Your task to perform on an android device: Search for sushi restaurants on Maps Image 0: 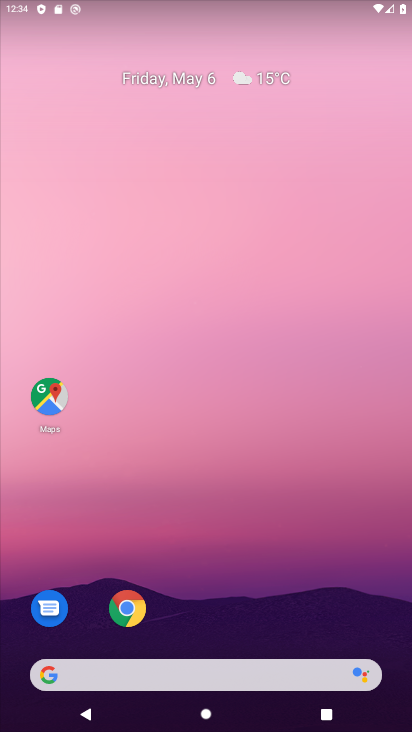
Step 0: drag from (213, 561) to (168, 55)
Your task to perform on an android device: Search for sushi restaurants on Maps Image 1: 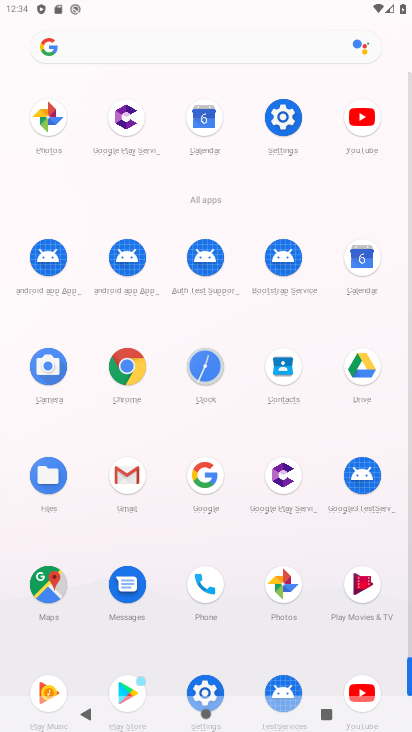
Step 1: click (50, 588)
Your task to perform on an android device: Search for sushi restaurants on Maps Image 2: 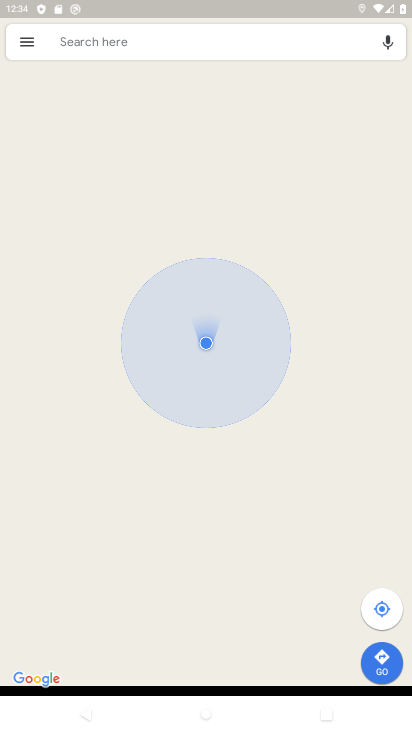
Step 2: click (126, 55)
Your task to perform on an android device: Search for sushi restaurants on Maps Image 3: 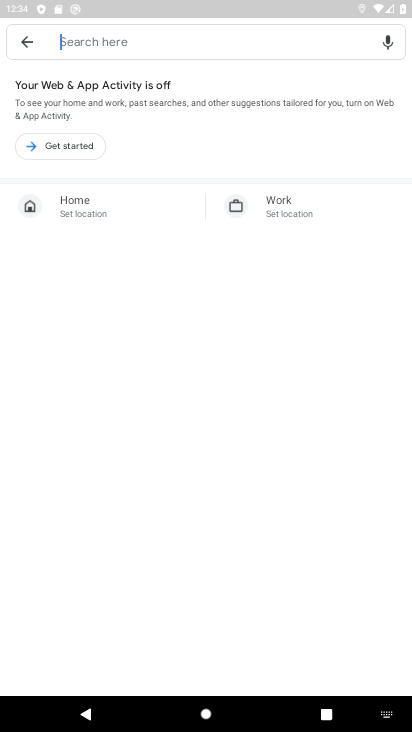
Step 3: type "sushi restaurants"
Your task to perform on an android device: Search for sushi restaurants on Maps Image 4: 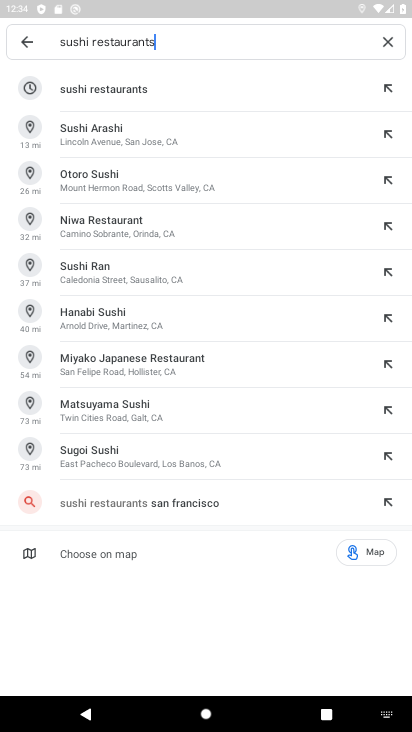
Step 4: click (150, 96)
Your task to perform on an android device: Search for sushi restaurants on Maps Image 5: 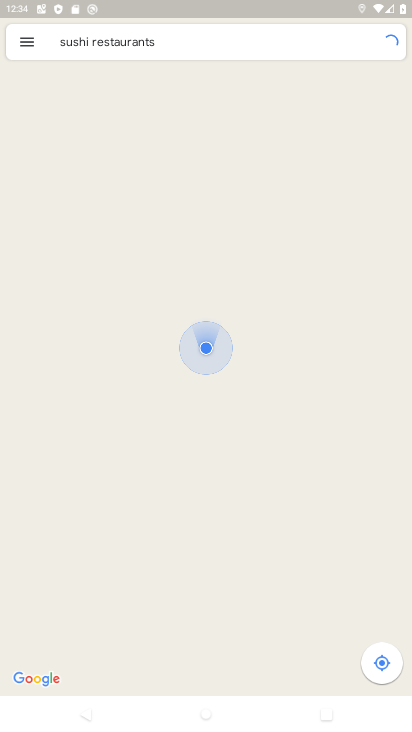
Step 5: task complete